Your task to perform on an android device: turn off location Image 0: 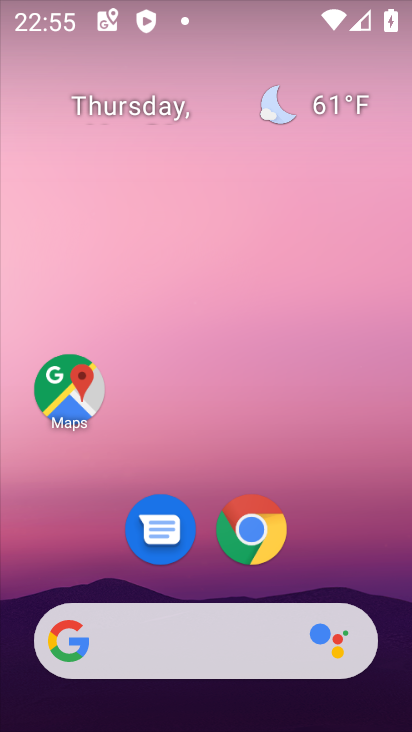
Step 0: drag from (339, 563) to (275, 43)
Your task to perform on an android device: turn off location Image 1: 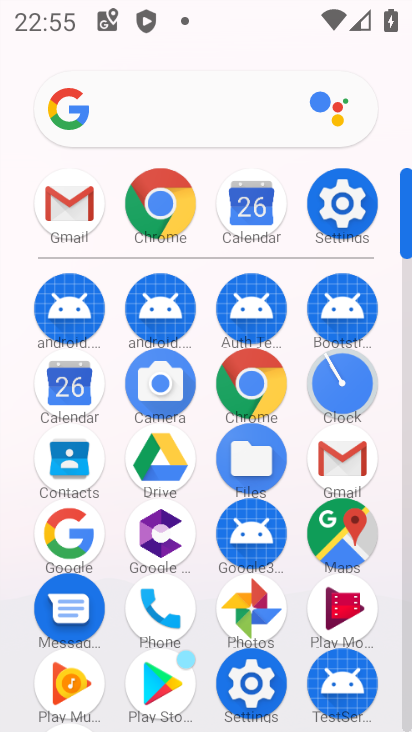
Step 1: click (338, 219)
Your task to perform on an android device: turn off location Image 2: 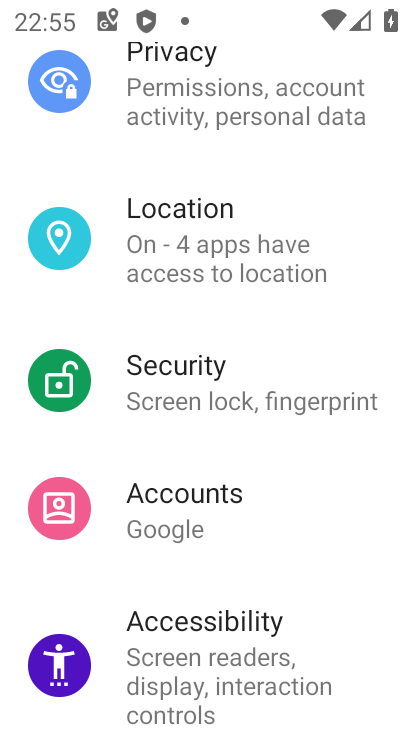
Step 2: click (214, 274)
Your task to perform on an android device: turn off location Image 3: 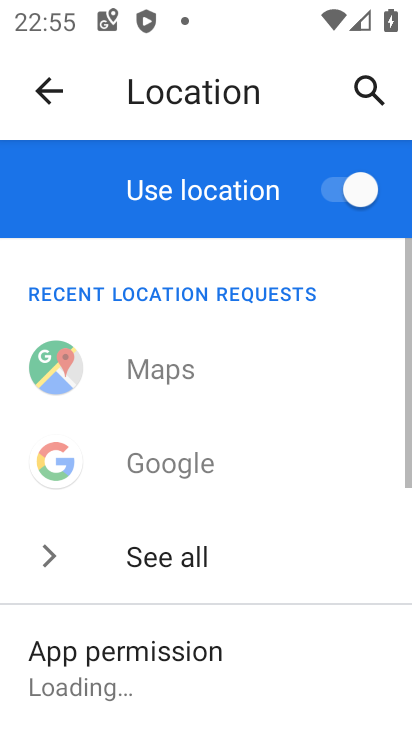
Step 3: task complete